Your task to perform on an android device: snooze an email in the gmail app Image 0: 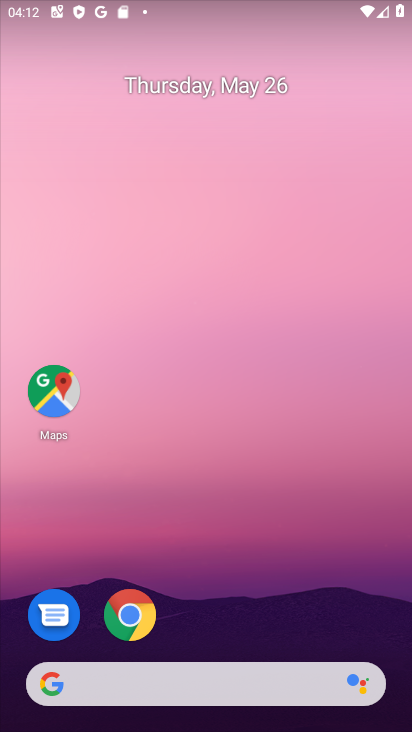
Step 0: drag from (191, 621) to (252, 124)
Your task to perform on an android device: snooze an email in the gmail app Image 1: 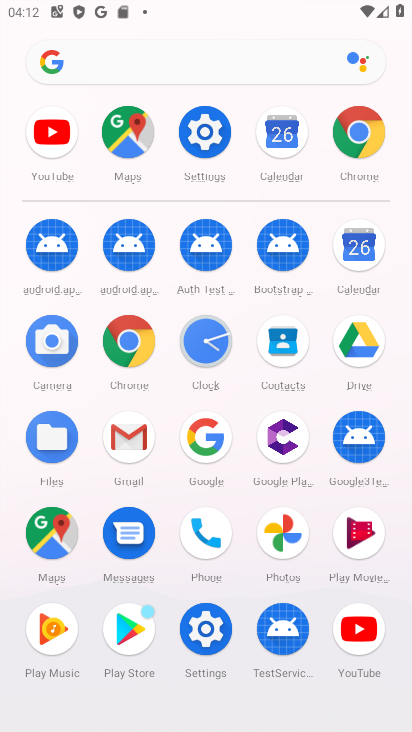
Step 1: click (135, 440)
Your task to perform on an android device: snooze an email in the gmail app Image 2: 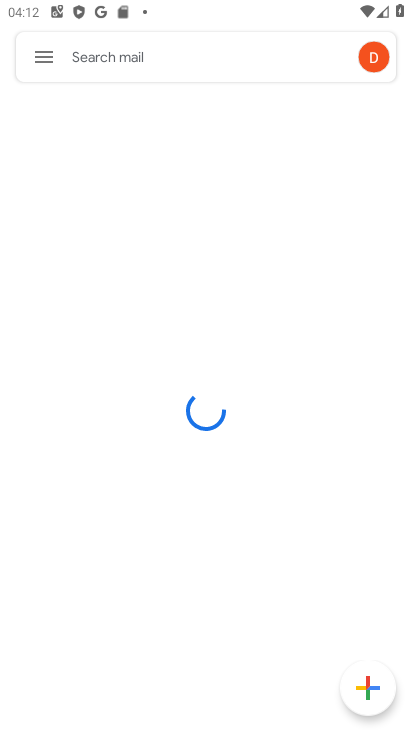
Step 2: click (39, 61)
Your task to perform on an android device: snooze an email in the gmail app Image 3: 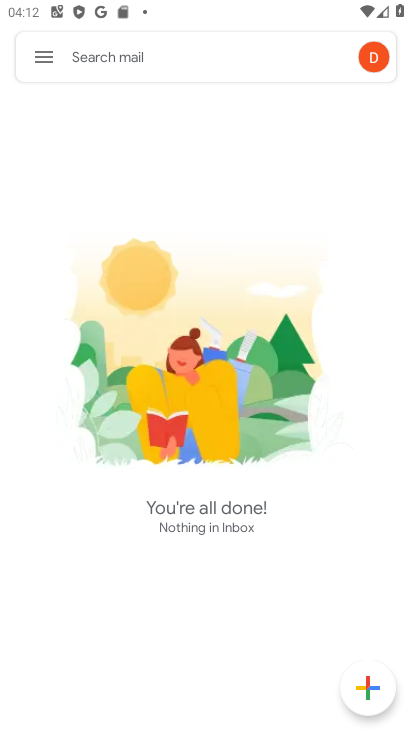
Step 3: click (49, 60)
Your task to perform on an android device: snooze an email in the gmail app Image 4: 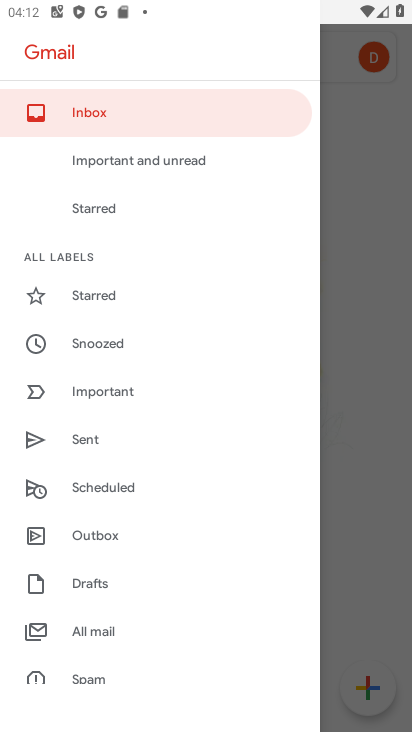
Step 4: click (98, 637)
Your task to perform on an android device: snooze an email in the gmail app Image 5: 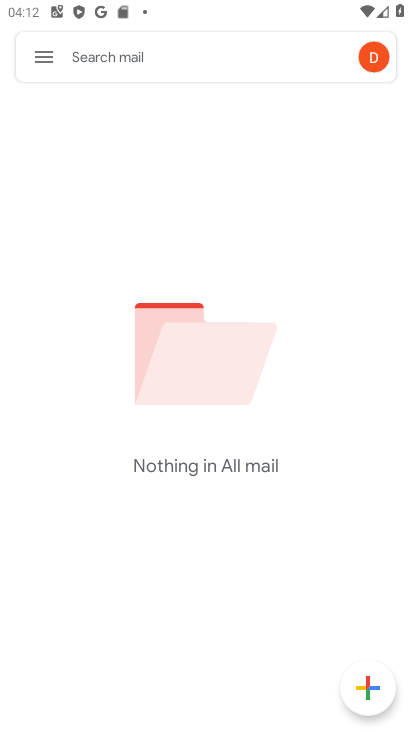
Step 5: task complete